Your task to perform on an android device: change the upload size in google photos Image 0: 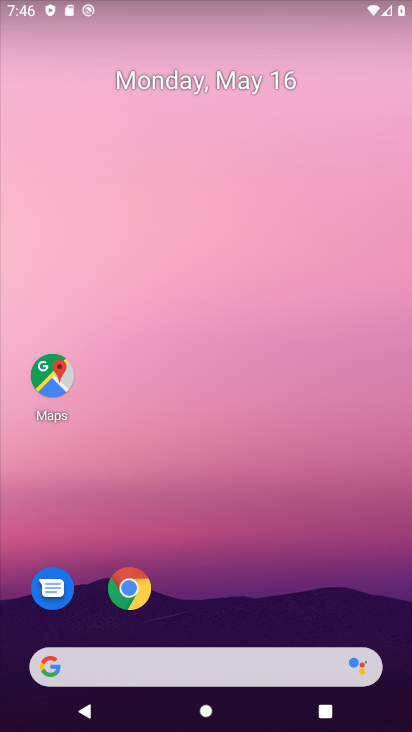
Step 0: drag from (376, 622) to (364, 86)
Your task to perform on an android device: change the upload size in google photos Image 1: 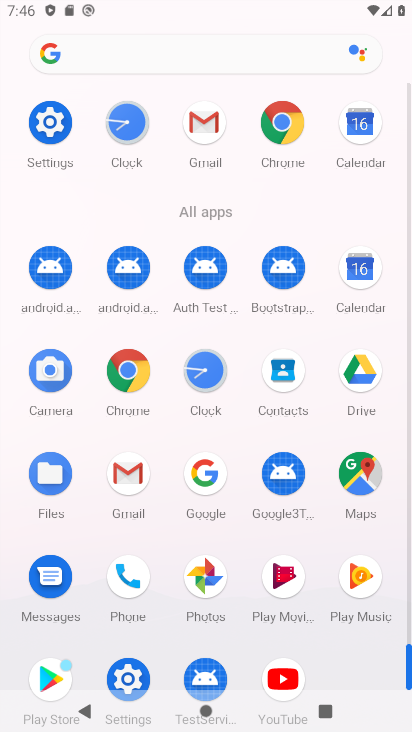
Step 1: click (207, 582)
Your task to perform on an android device: change the upload size in google photos Image 2: 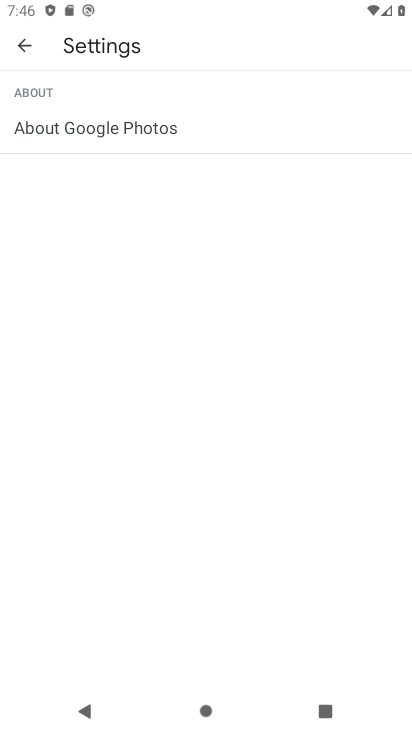
Step 2: click (28, 47)
Your task to perform on an android device: change the upload size in google photos Image 3: 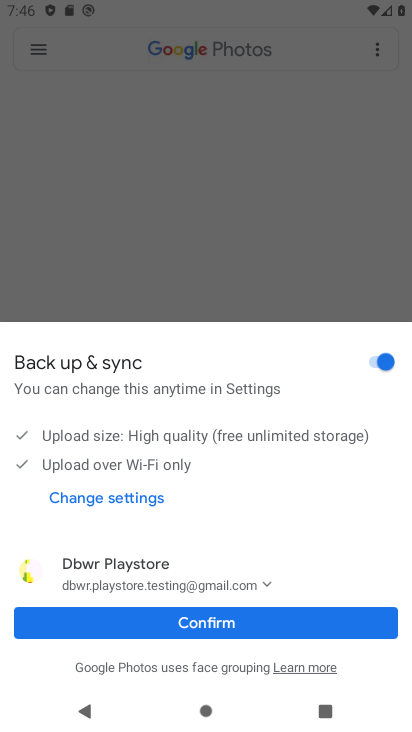
Step 3: click (254, 619)
Your task to perform on an android device: change the upload size in google photos Image 4: 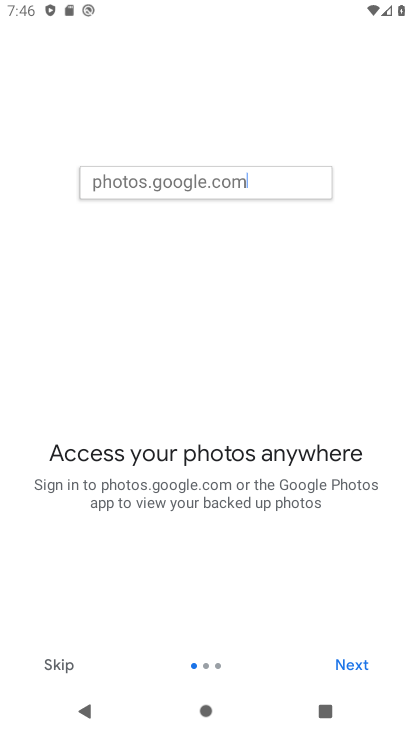
Step 4: click (350, 662)
Your task to perform on an android device: change the upload size in google photos Image 5: 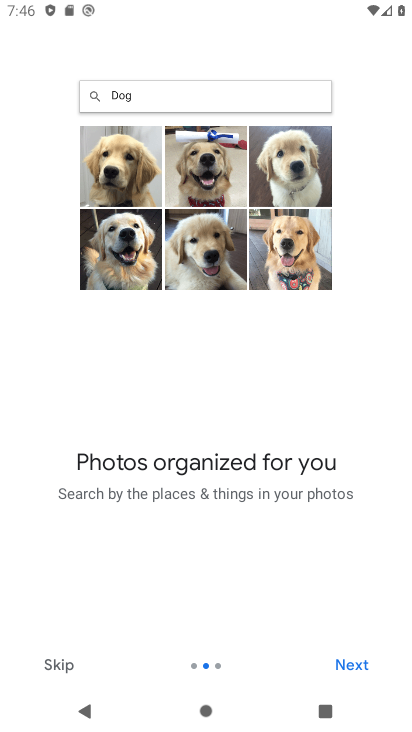
Step 5: click (350, 662)
Your task to perform on an android device: change the upload size in google photos Image 6: 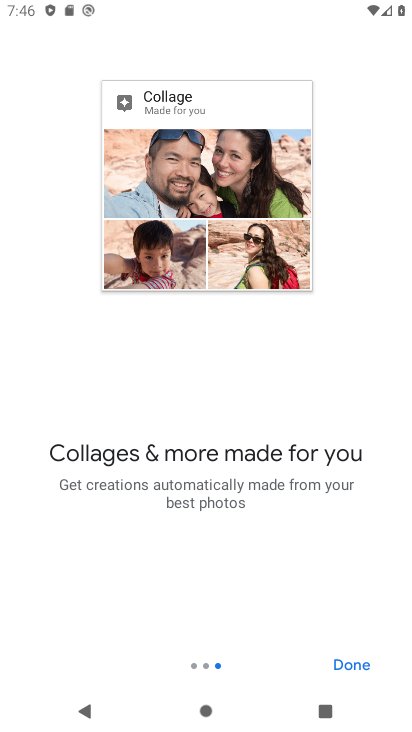
Step 6: click (350, 662)
Your task to perform on an android device: change the upload size in google photos Image 7: 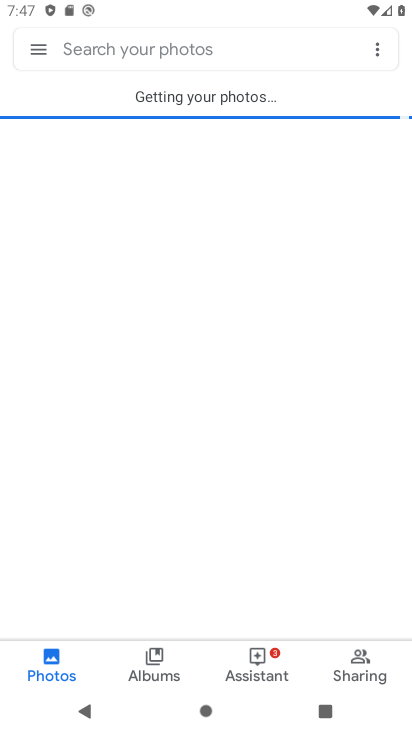
Step 7: click (35, 53)
Your task to perform on an android device: change the upload size in google photos Image 8: 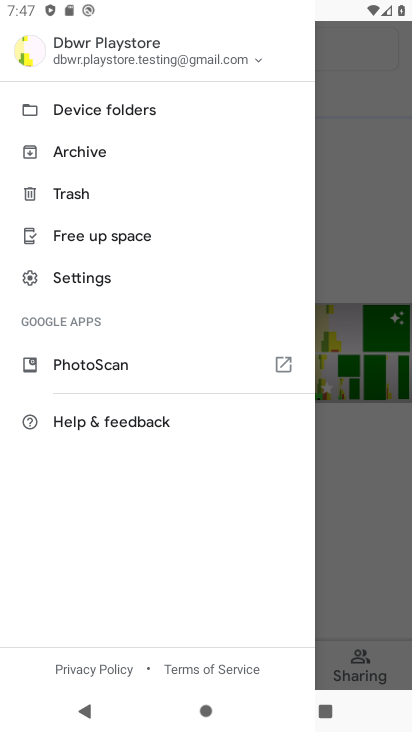
Step 8: click (120, 280)
Your task to perform on an android device: change the upload size in google photos Image 9: 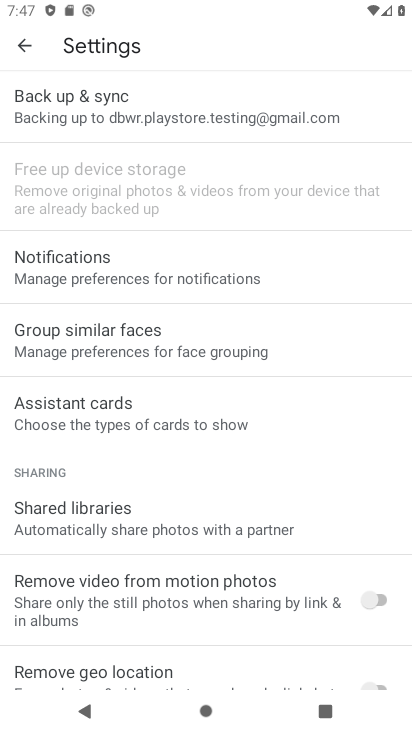
Step 9: click (100, 99)
Your task to perform on an android device: change the upload size in google photos Image 10: 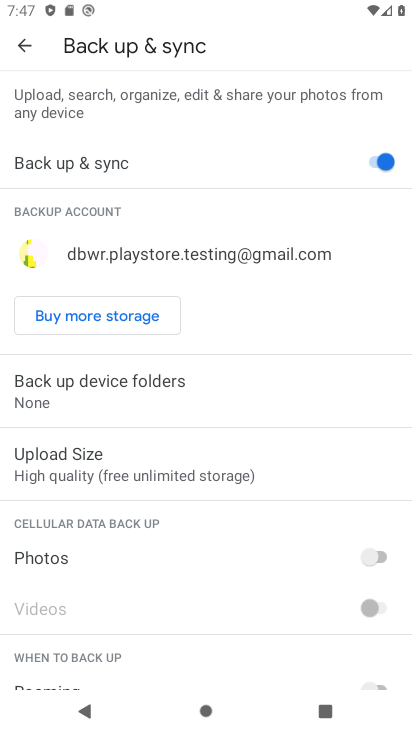
Step 10: drag from (245, 600) to (249, 442)
Your task to perform on an android device: change the upload size in google photos Image 11: 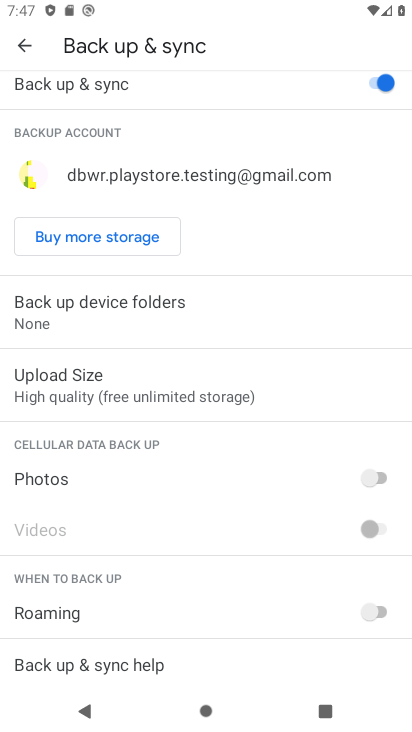
Step 11: click (194, 382)
Your task to perform on an android device: change the upload size in google photos Image 12: 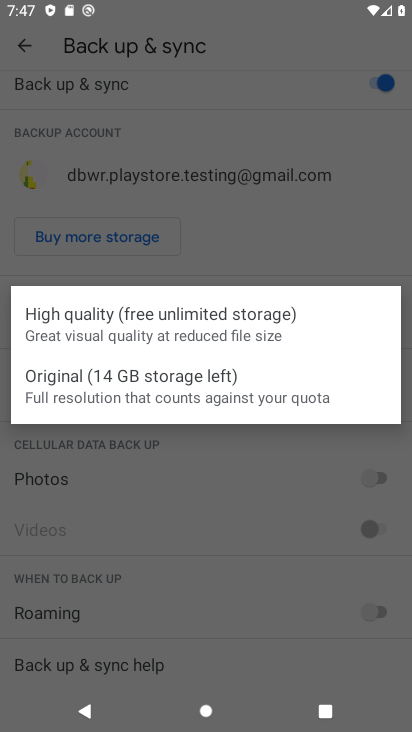
Step 12: click (178, 395)
Your task to perform on an android device: change the upload size in google photos Image 13: 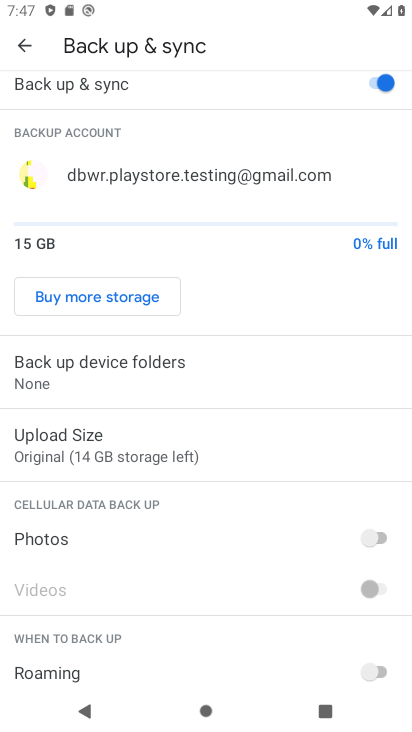
Step 13: task complete